Your task to perform on an android device: Go to wifi settings Image 0: 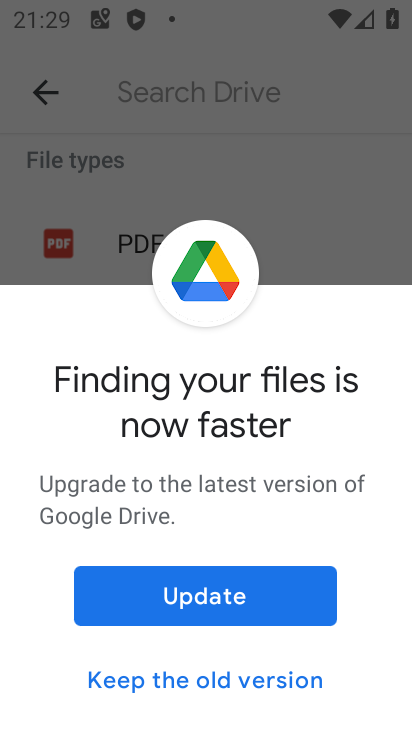
Step 0: drag from (240, 16) to (121, 605)
Your task to perform on an android device: Go to wifi settings Image 1: 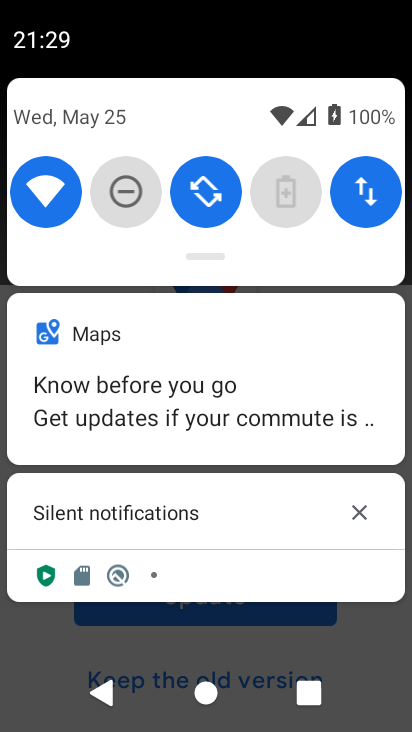
Step 1: click (54, 203)
Your task to perform on an android device: Go to wifi settings Image 2: 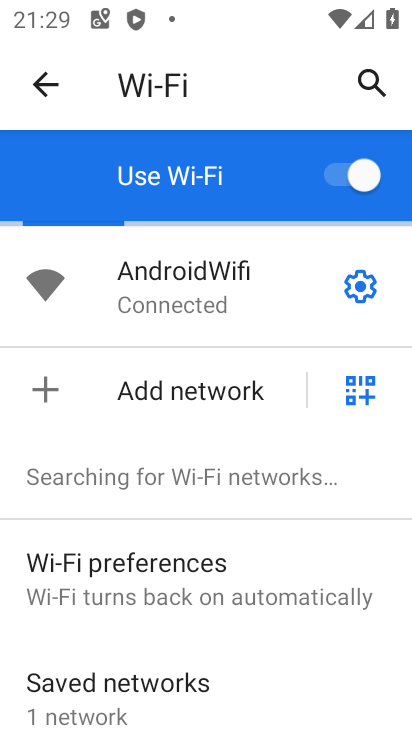
Step 2: task complete